Your task to perform on an android device: change text size in settings app Image 0: 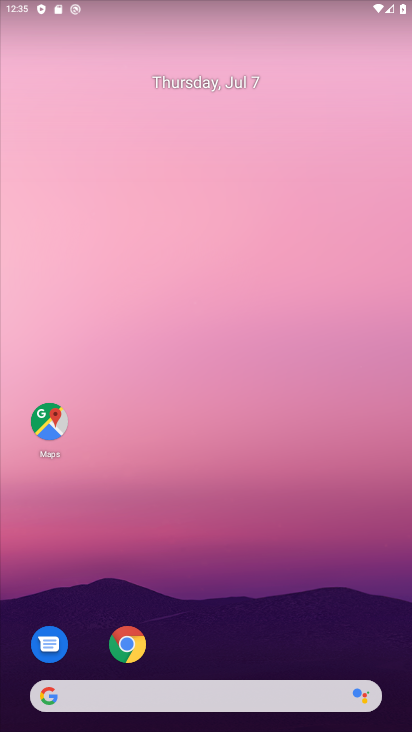
Step 0: drag from (265, 653) to (247, 74)
Your task to perform on an android device: change text size in settings app Image 1: 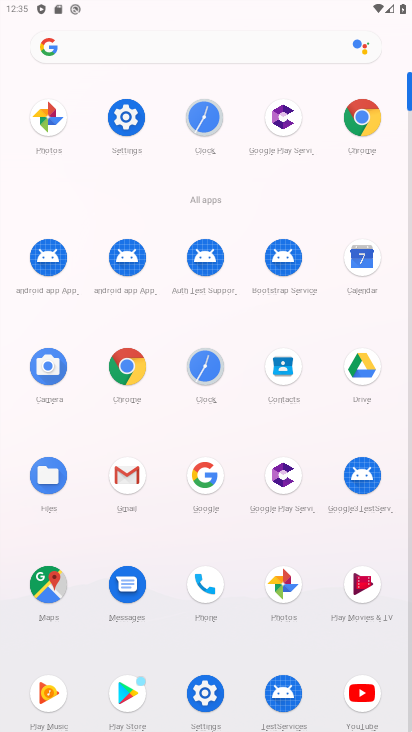
Step 1: click (129, 121)
Your task to perform on an android device: change text size in settings app Image 2: 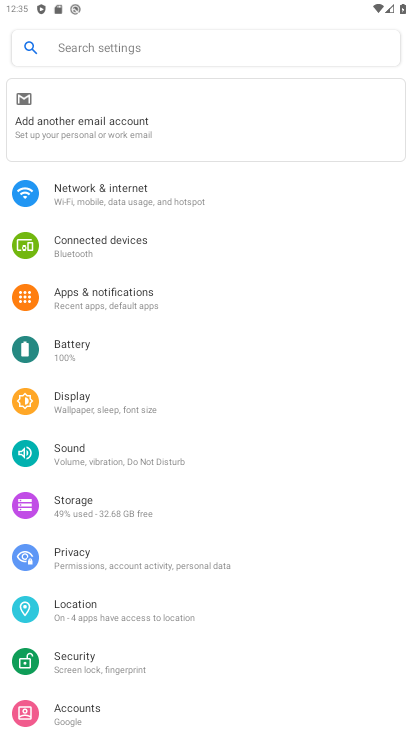
Step 2: click (132, 404)
Your task to perform on an android device: change text size in settings app Image 3: 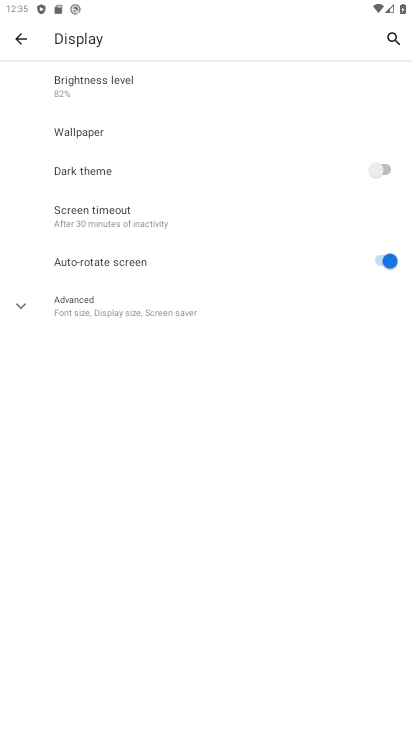
Step 3: click (199, 303)
Your task to perform on an android device: change text size in settings app Image 4: 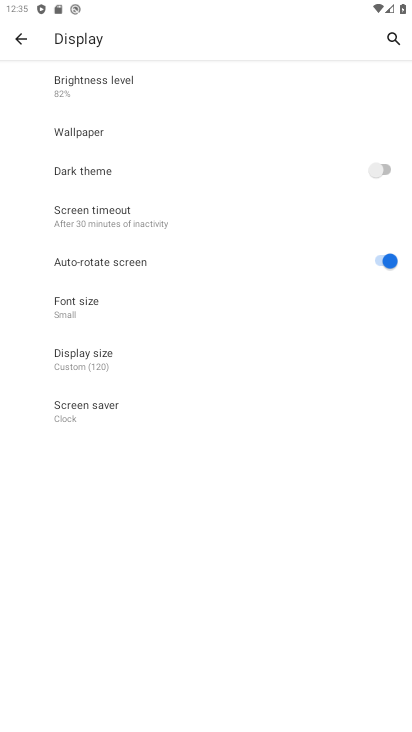
Step 4: click (139, 319)
Your task to perform on an android device: change text size in settings app Image 5: 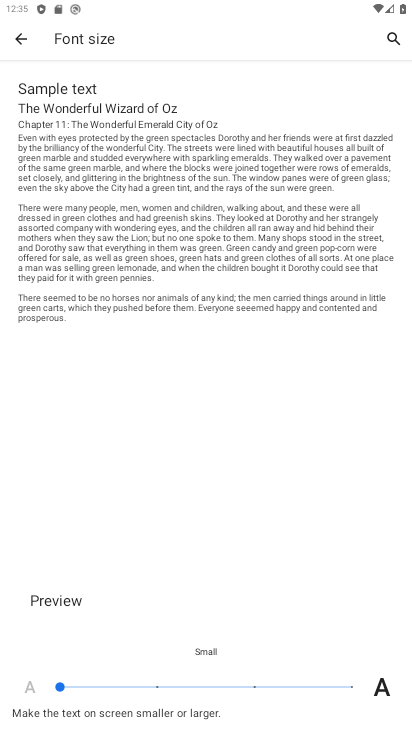
Step 5: click (264, 686)
Your task to perform on an android device: change text size in settings app Image 6: 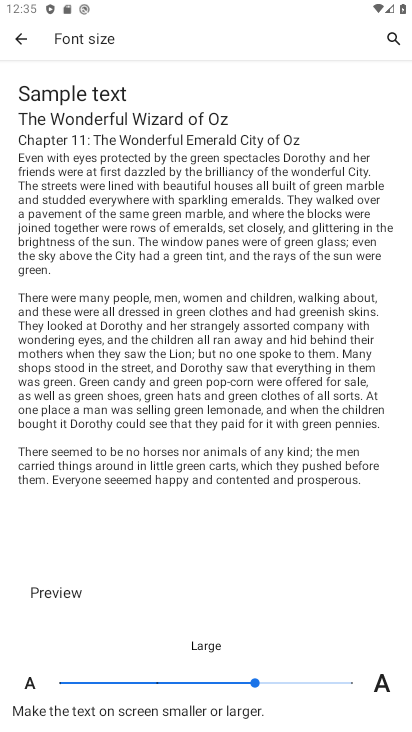
Step 6: task complete